Your task to perform on an android device: remove spam from my inbox in the gmail app Image 0: 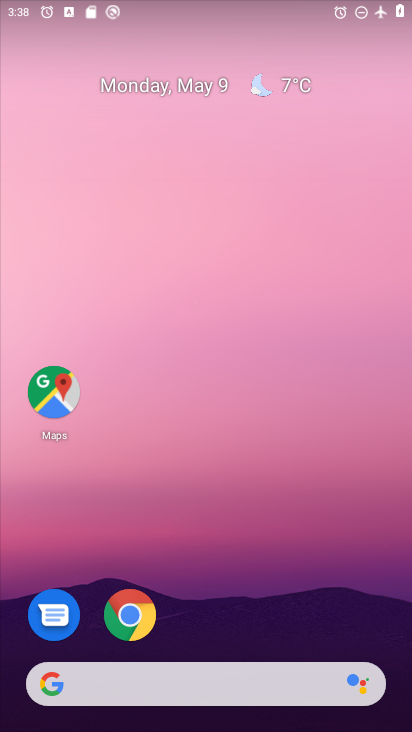
Step 0: drag from (387, 628) to (293, 97)
Your task to perform on an android device: remove spam from my inbox in the gmail app Image 1: 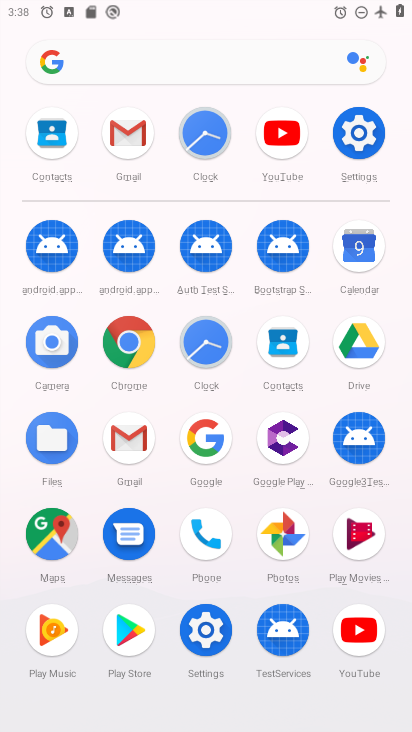
Step 1: click (124, 430)
Your task to perform on an android device: remove spam from my inbox in the gmail app Image 2: 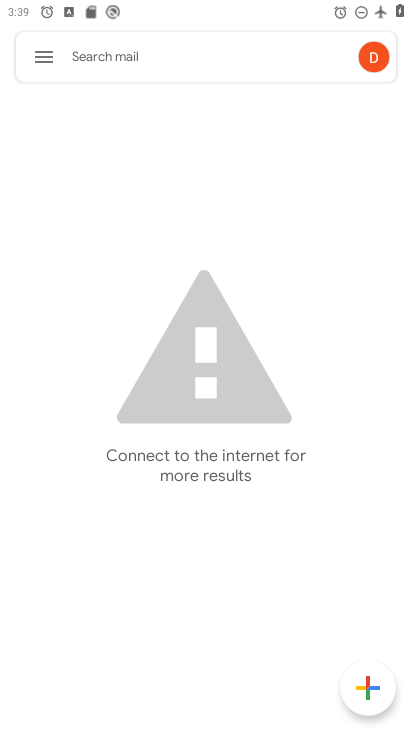
Step 2: click (43, 51)
Your task to perform on an android device: remove spam from my inbox in the gmail app Image 3: 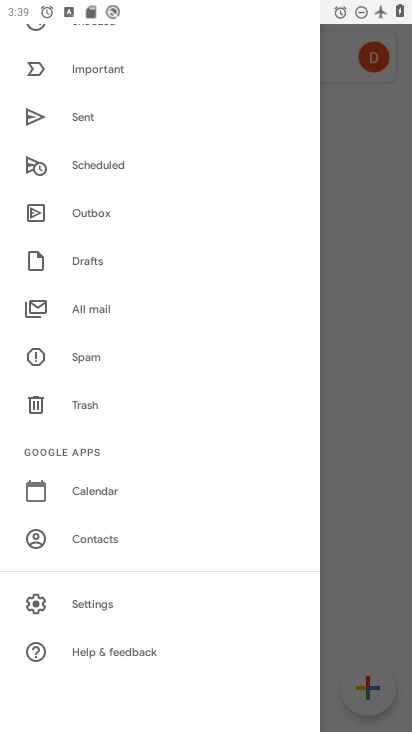
Step 3: click (88, 357)
Your task to perform on an android device: remove spam from my inbox in the gmail app Image 4: 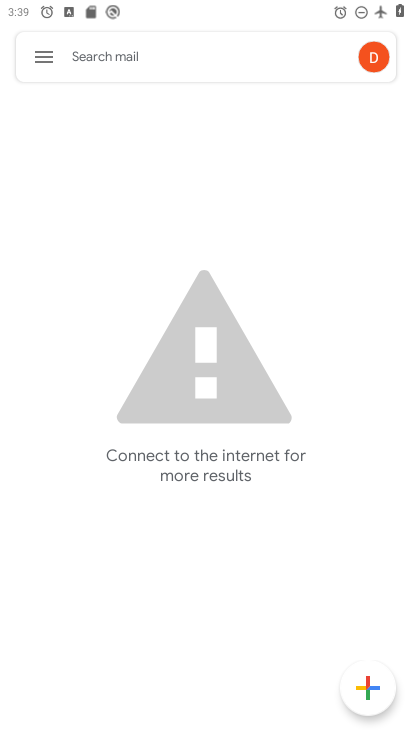
Step 4: task complete